Your task to perform on an android device: open app "Nova Launcher" Image 0: 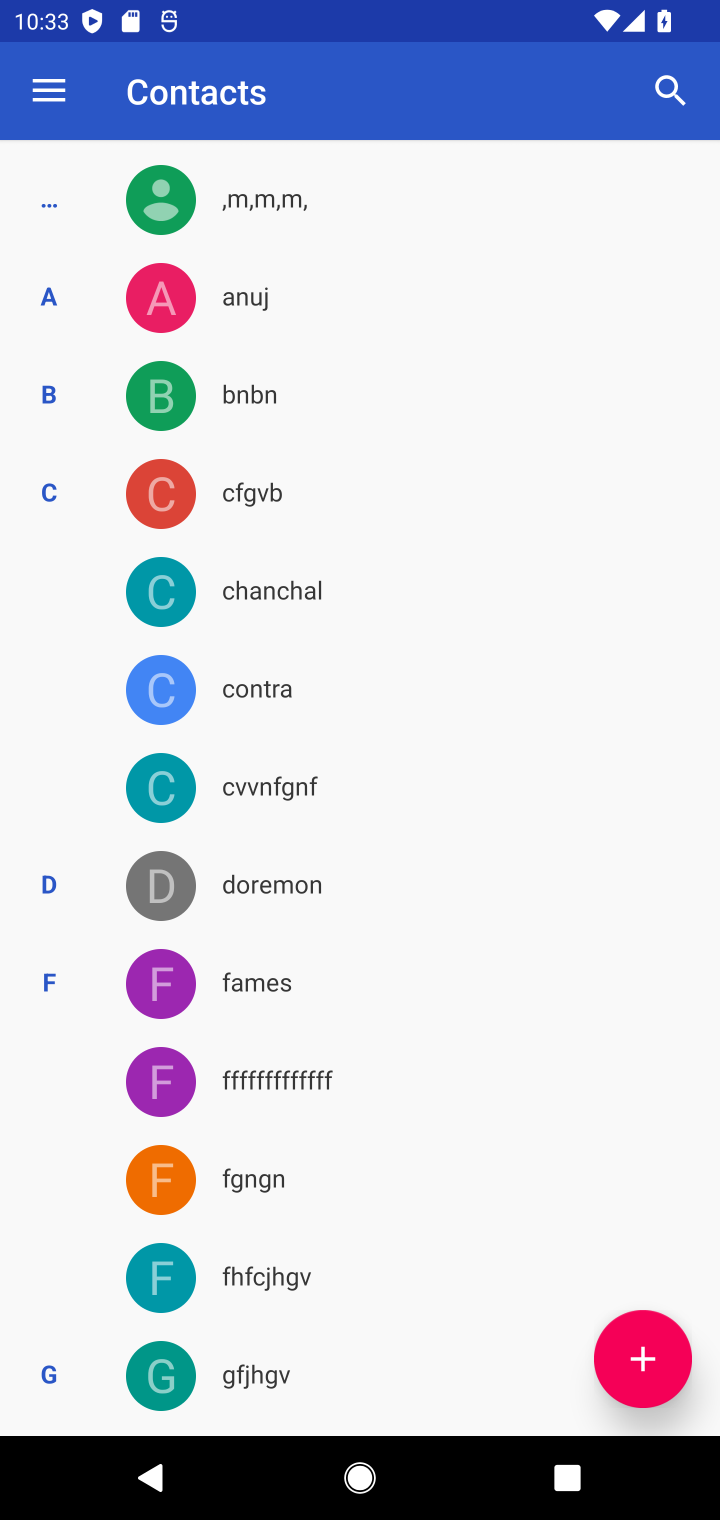
Step 0: press home button
Your task to perform on an android device: open app "Nova Launcher" Image 1: 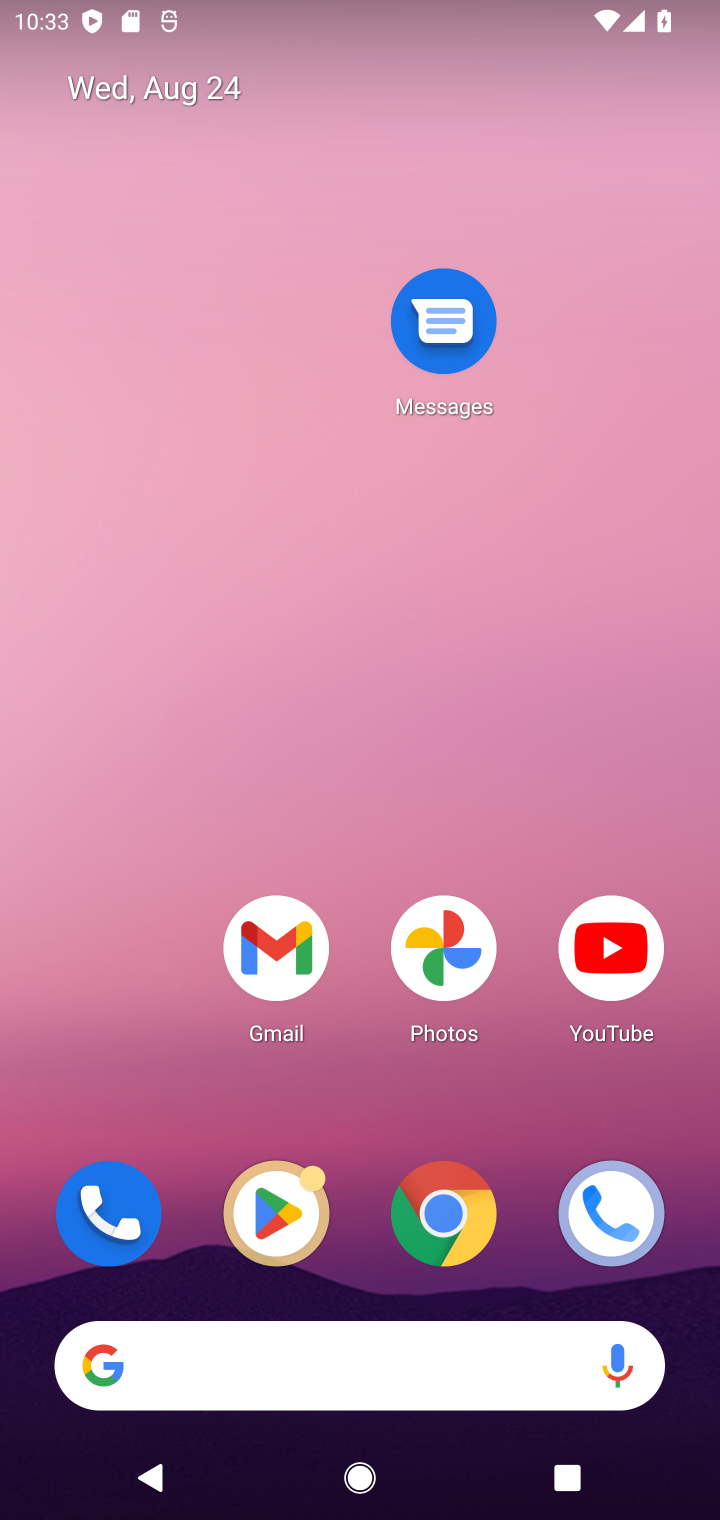
Step 1: click (290, 1203)
Your task to perform on an android device: open app "Nova Launcher" Image 2: 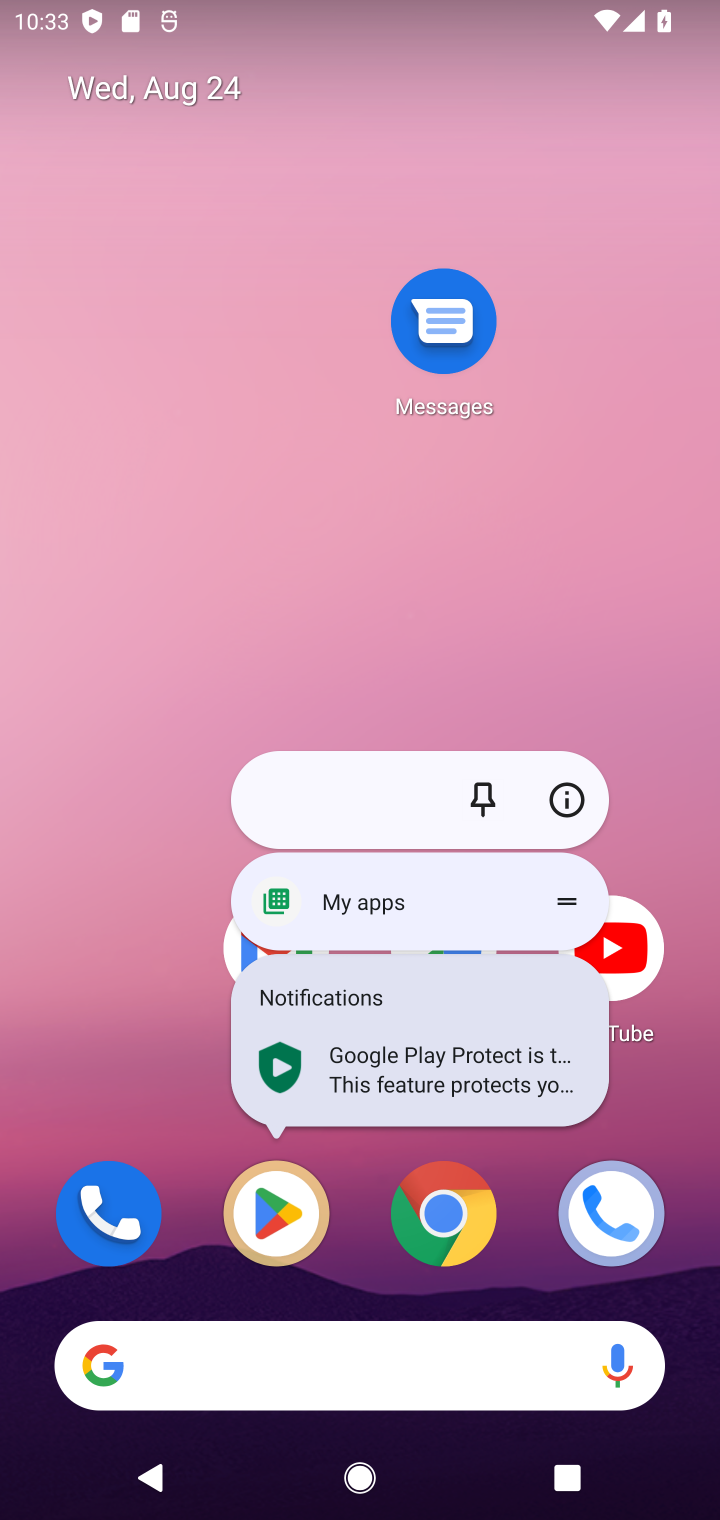
Step 2: click (256, 1210)
Your task to perform on an android device: open app "Nova Launcher" Image 3: 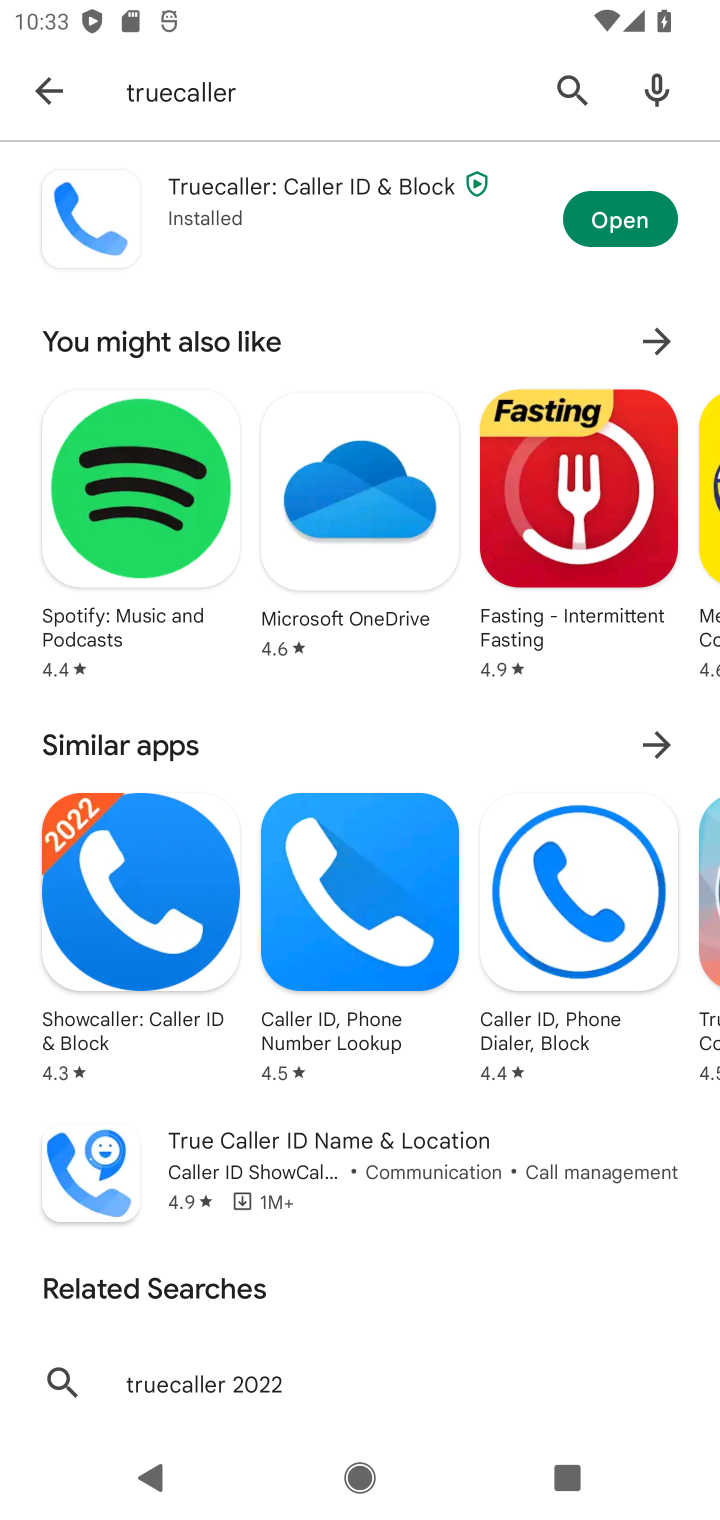
Step 3: click (243, 96)
Your task to perform on an android device: open app "Nova Launcher" Image 4: 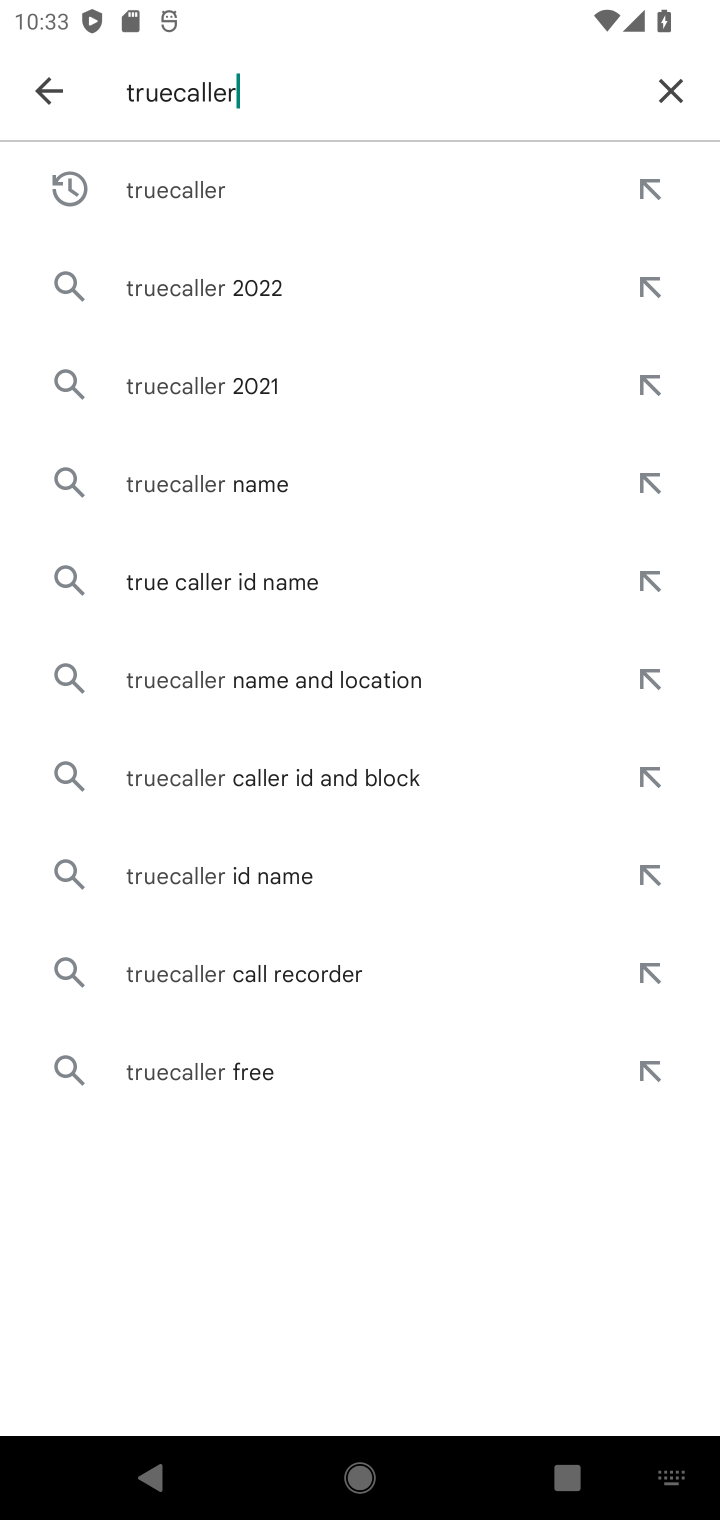
Step 4: click (655, 80)
Your task to perform on an android device: open app "Nova Launcher" Image 5: 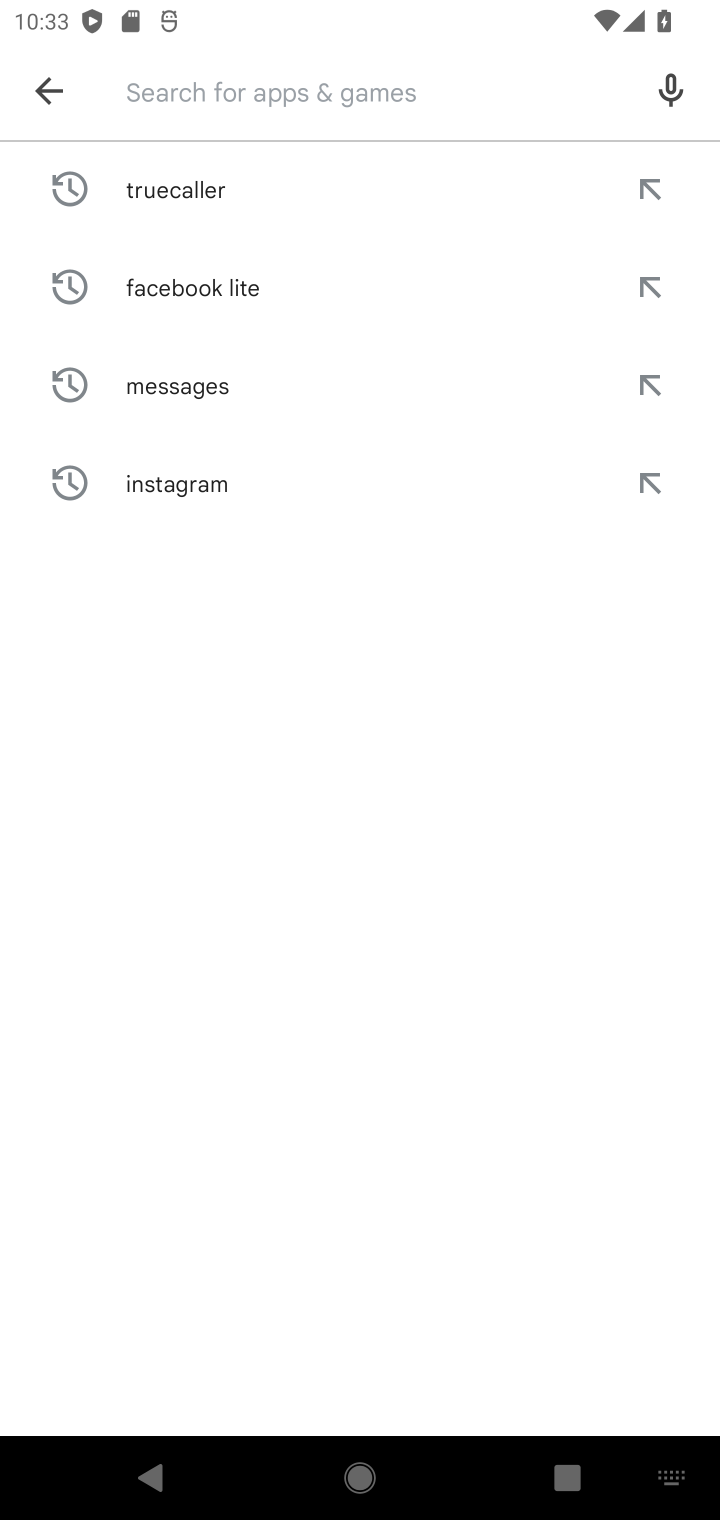
Step 5: type "Nova launcher"
Your task to perform on an android device: open app "Nova Launcher" Image 6: 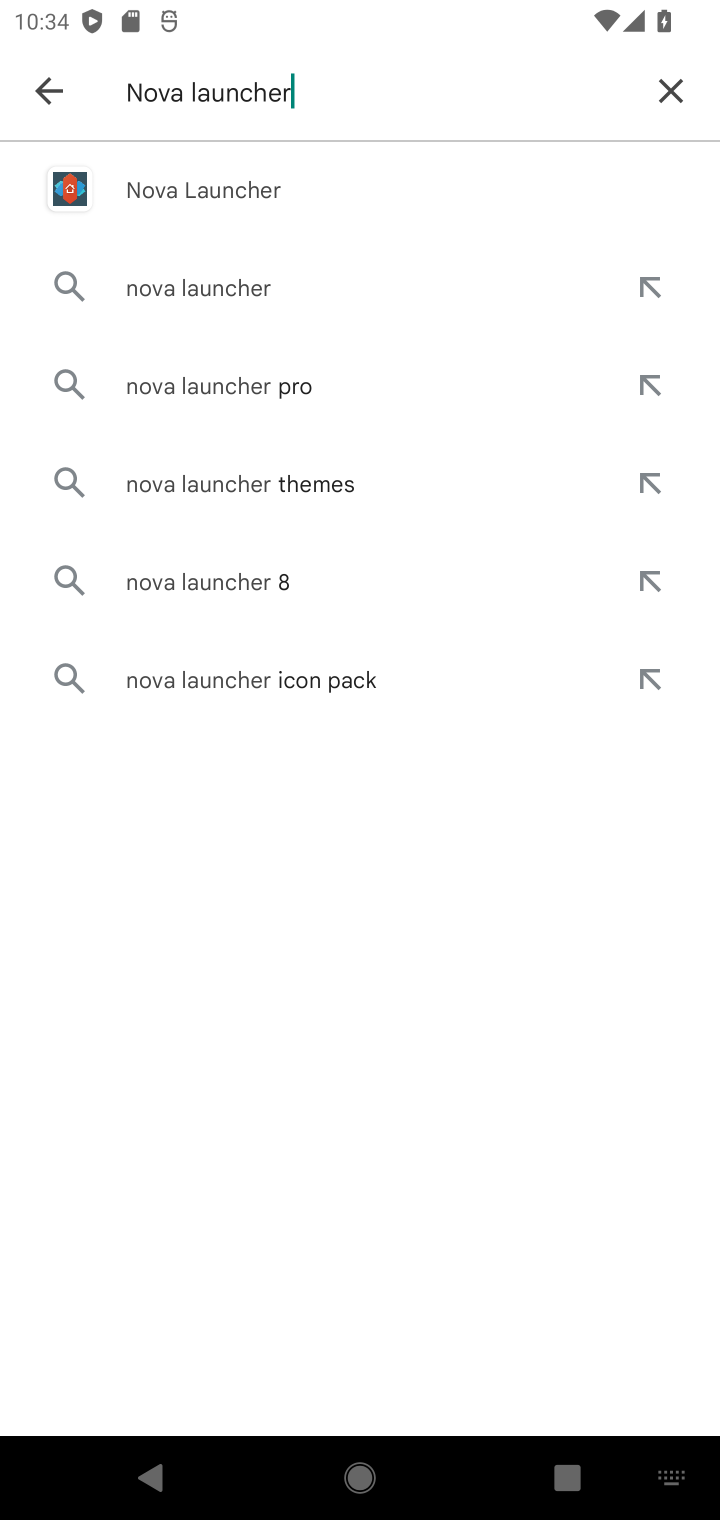
Step 6: click (313, 191)
Your task to perform on an android device: open app "Nova Launcher" Image 7: 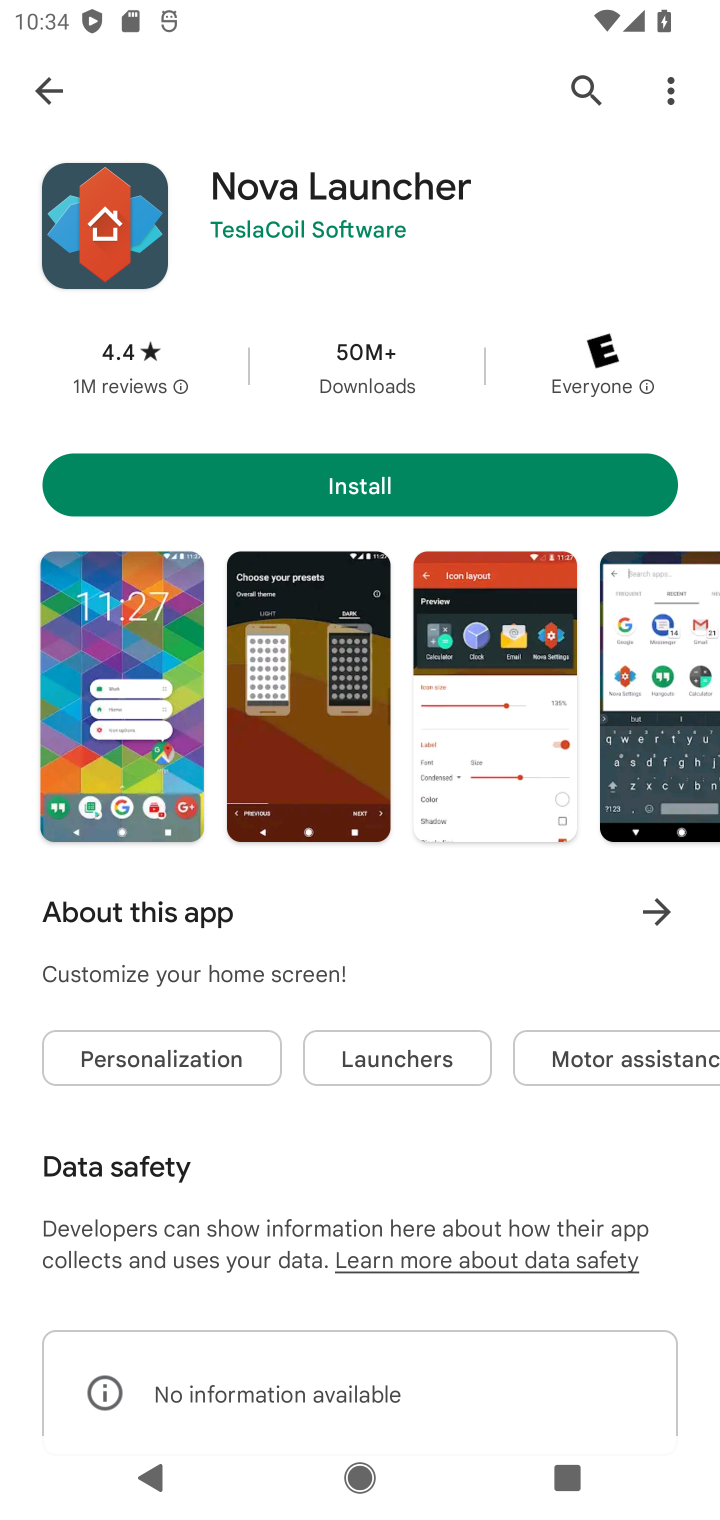
Step 7: task complete